Your task to perform on an android device: Clear the shopping cart on newegg. Search for "acer predator" on newegg, select the first entry, and add it to the cart. Image 0: 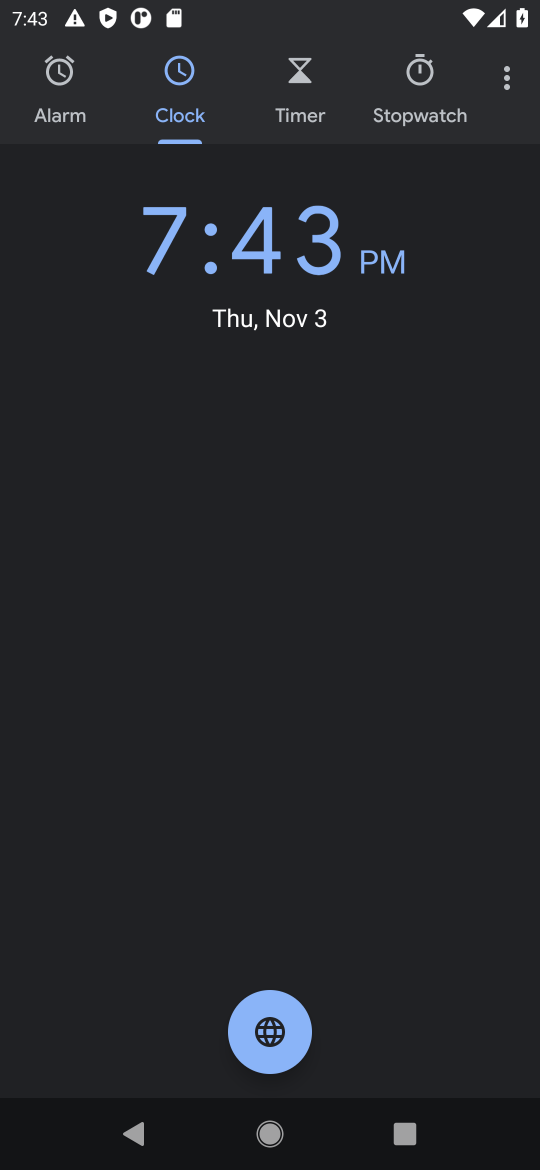
Step 0: press home button
Your task to perform on an android device: Clear the shopping cart on newegg. Search for "acer predator" on newegg, select the first entry, and add it to the cart. Image 1: 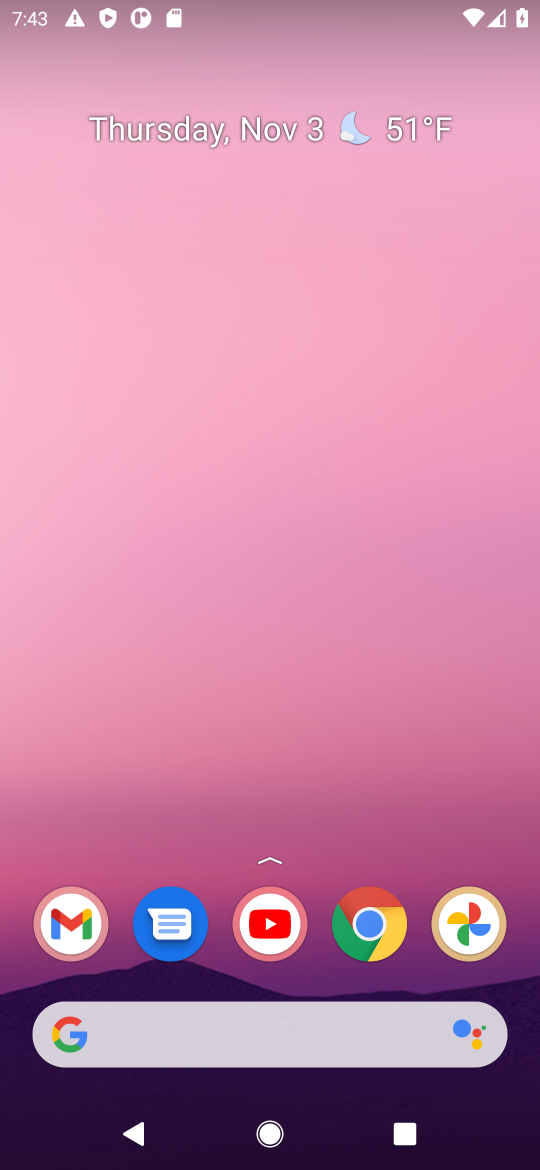
Step 1: drag from (128, 981) to (211, 319)
Your task to perform on an android device: Clear the shopping cart on newegg. Search for "acer predator" on newegg, select the first entry, and add it to the cart. Image 2: 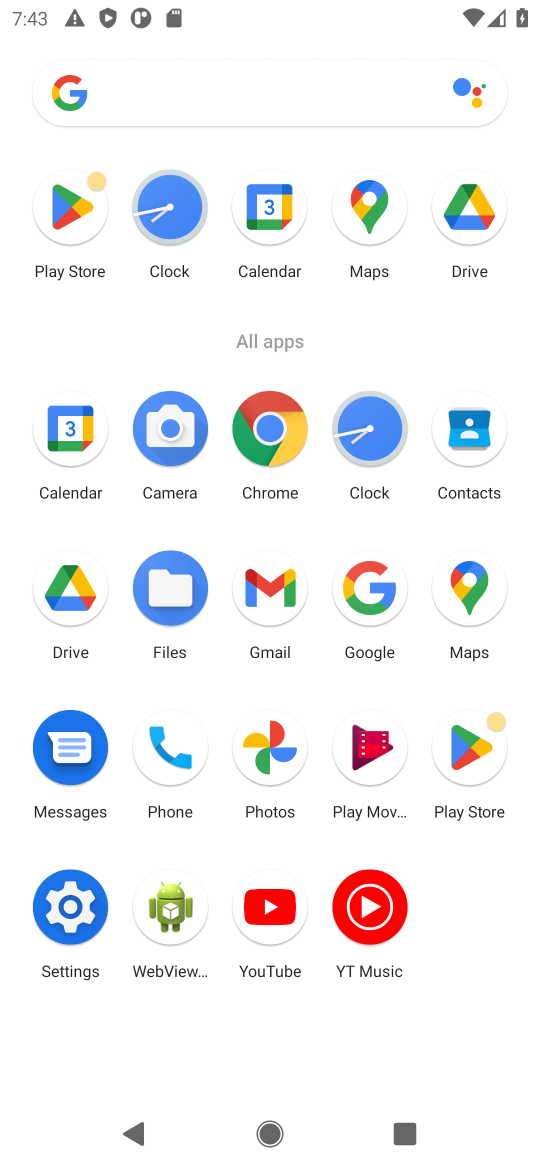
Step 2: click (369, 576)
Your task to perform on an android device: Clear the shopping cart on newegg. Search for "acer predator" on newegg, select the first entry, and add it to the cart. Image 3: 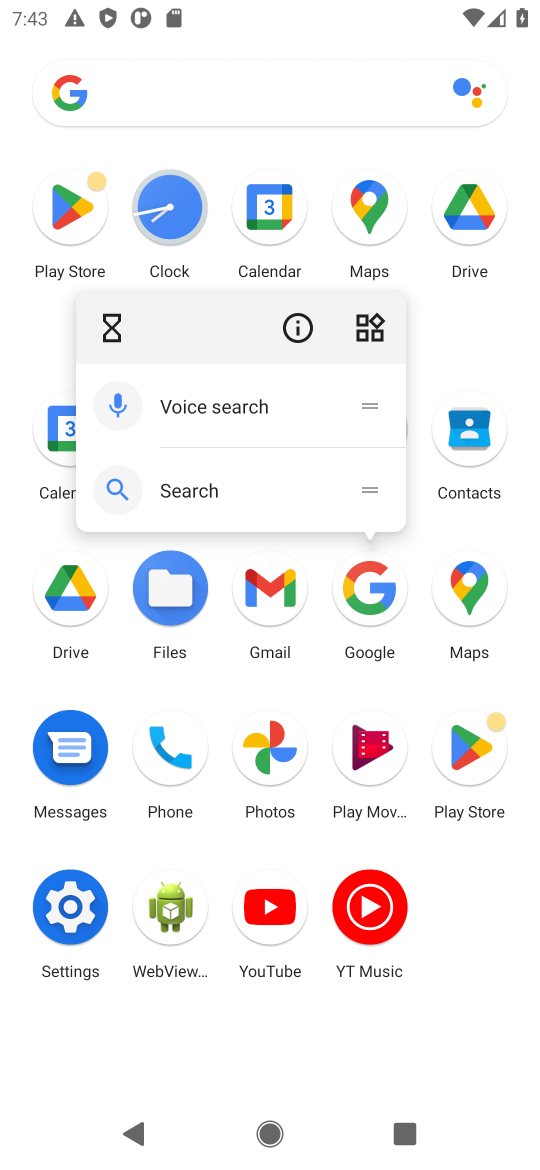
Step 3: click (366, 567)
Your task to perform on an android device: Clear the shopping cart on newegg. Search for "acer predator" on newegg, select the first entry, and add it to the cart. Image 4: 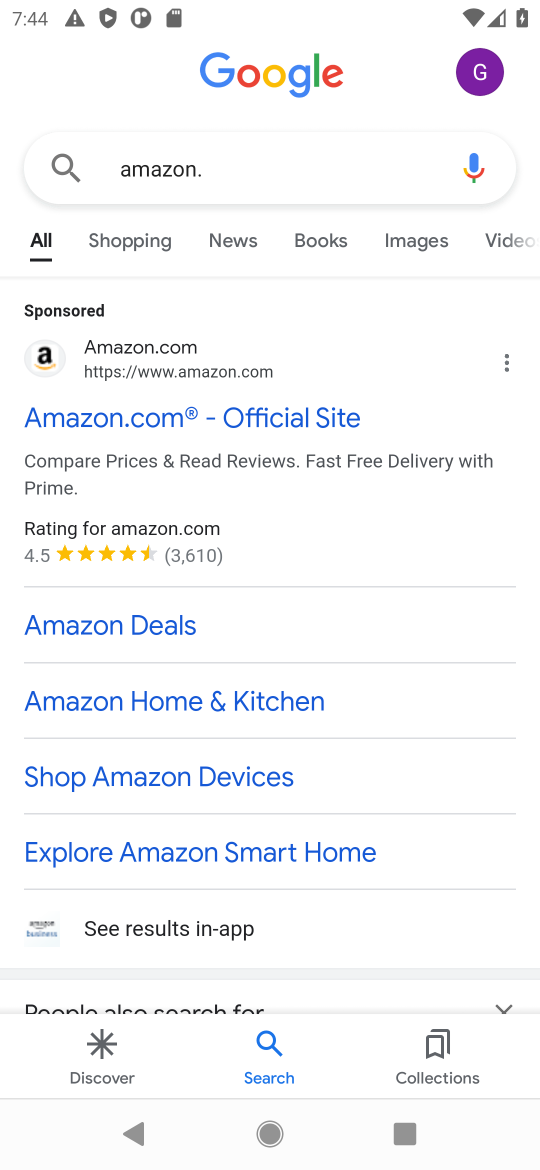
Step 4: click (237, 146)
Your task to perform on an android device: Clear the shopping cart on newegg. Search for "acer predator" on newegg, select the first entry, and add it to the cart. Image 5: 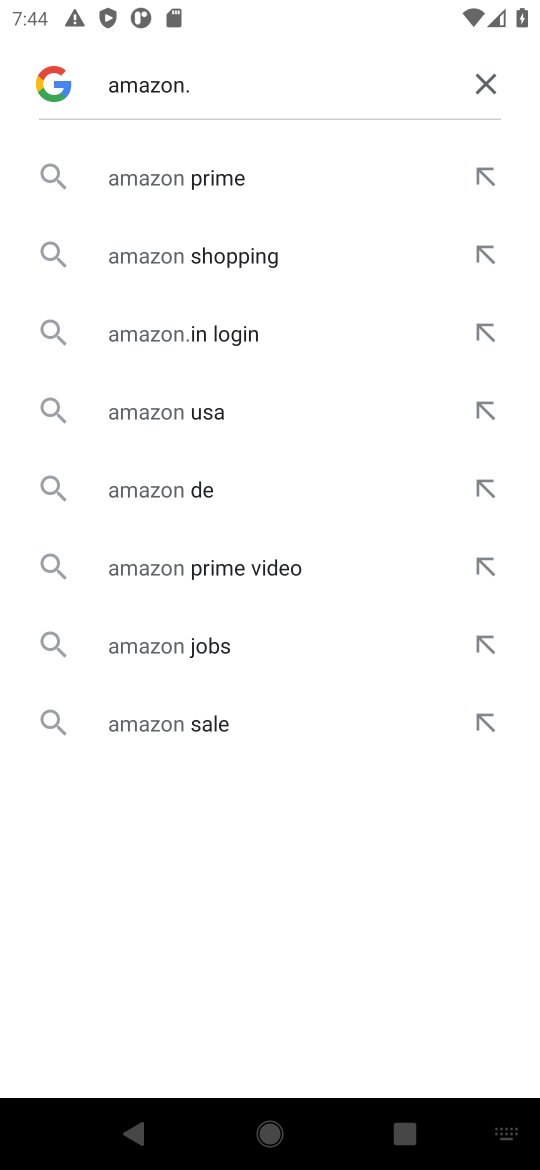
Step 5: click (478, 68)
Your task to perform on an android device: Clear the shopping cart on newegg. Search for "acer predator" on newegg, select the first entry, and add it to the cart. Image 6: 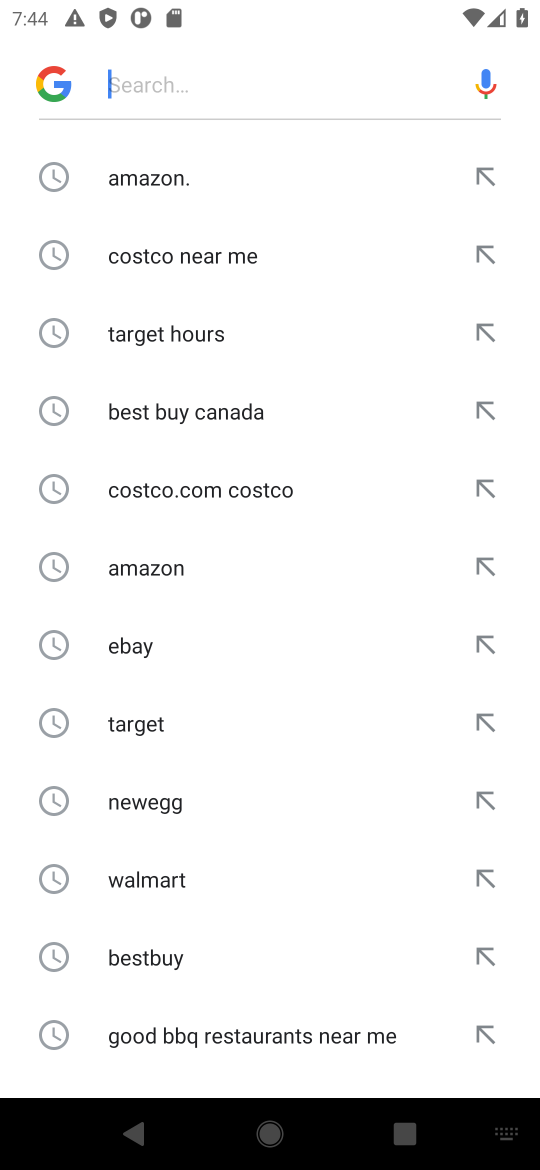
Step 6: click (208, 70)
Your task to perform on an android device: Clear the shopping cart on newegg. Search for "acer predator" on newegg, select the first entry, and add it to the cart. Image 7: 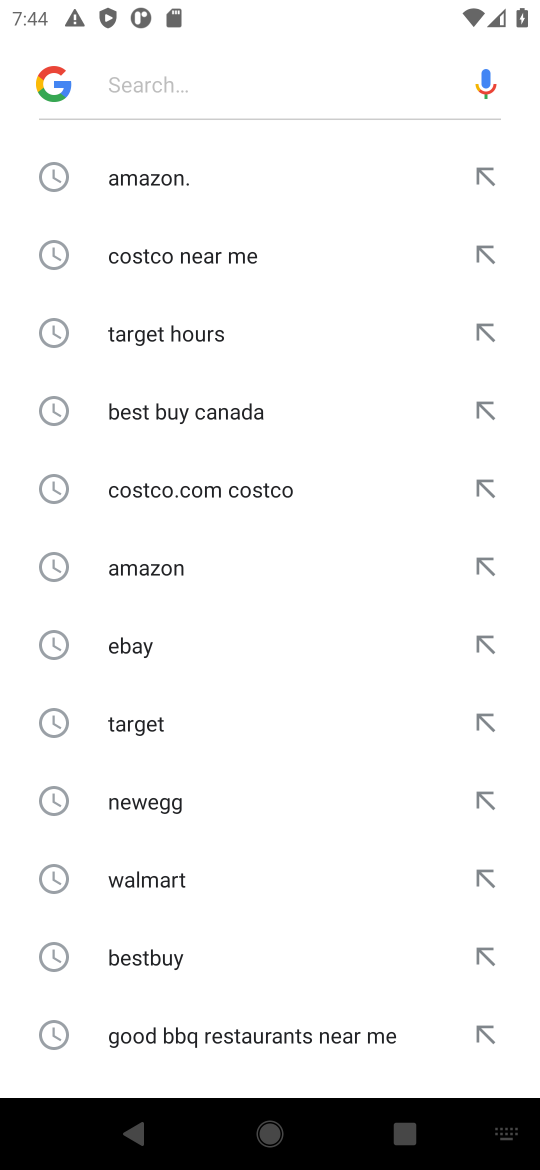
Step 7: type "newegg "
Your task to perform on an android device: Clear the shopping cart on newegg. Search for "acer predator" on newegg, select the first entry, and add it to the cart. Image 8: 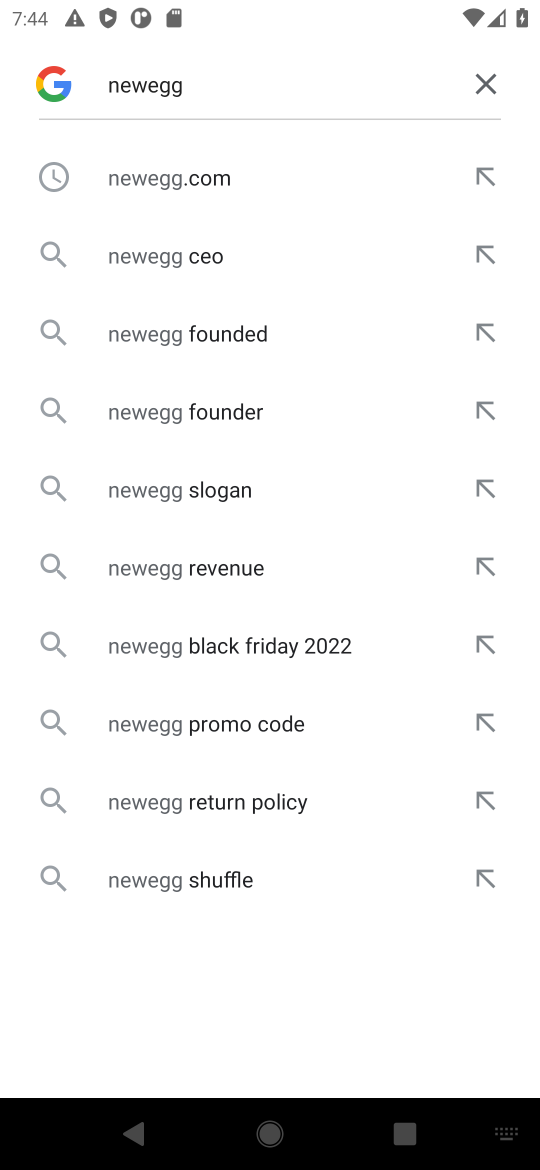
Step 8: click (124, 171)
Your task to perform on an android device: Clear the shopping cart on newegg. Search for "acer predator" on newegg, select the first entry, and add it to the cart. Image 9: 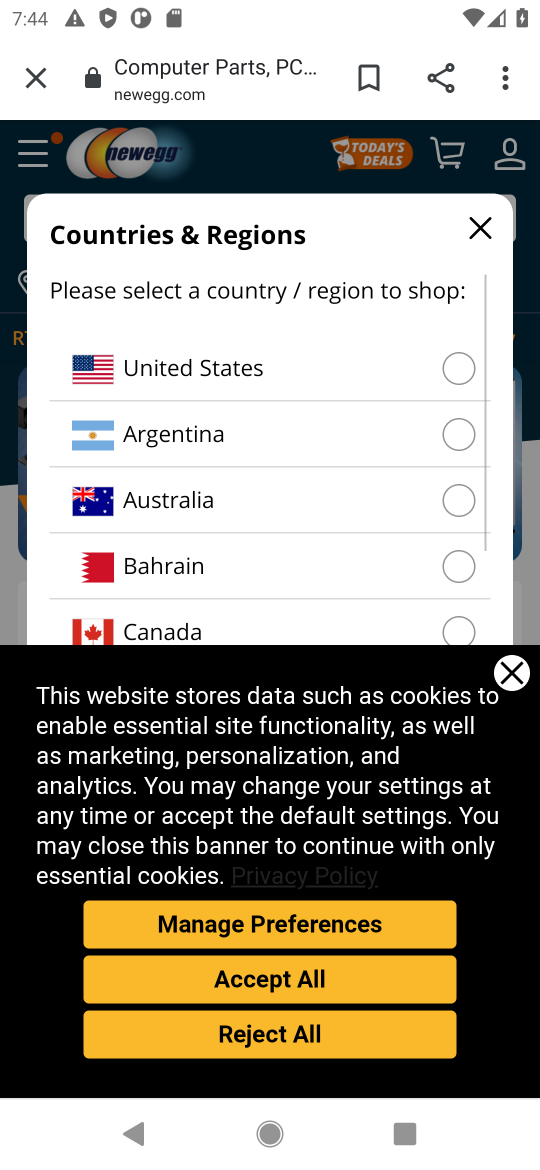
Step 9: click (515, 670)
Your task to perform on an android device: Clear the shopping cart on newegg. Search for "acer predator" on newegg, select the first entry, and add it to the cart. Image 10: 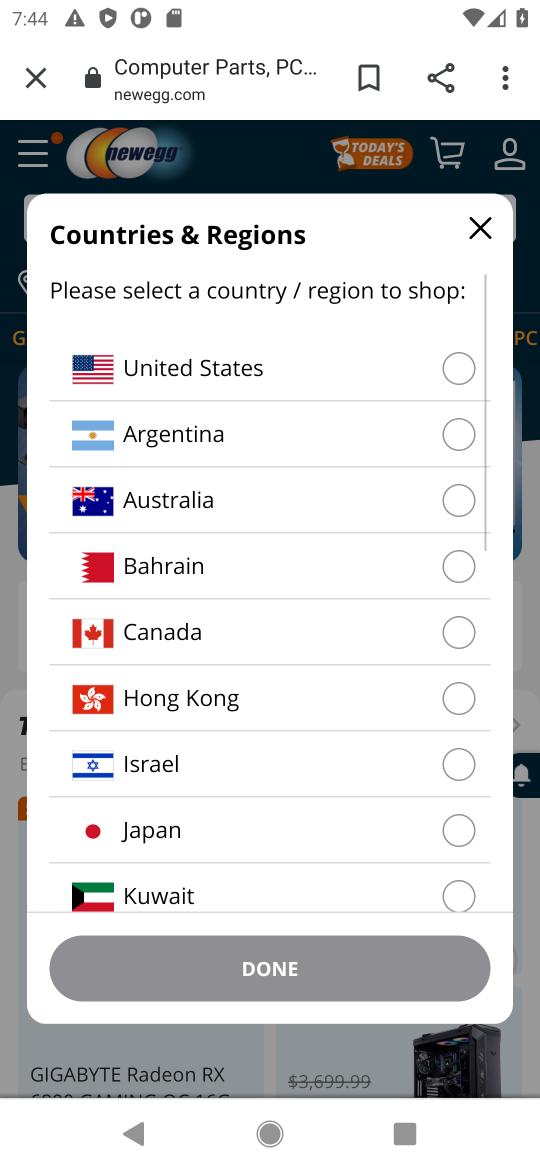
Step 10: click (480, 233)
Your task to perform on an android device: Clear the shopping cart on newegg. Search for "acer predator" on newegg, select the first entry, and add it to the cart. Image 11: 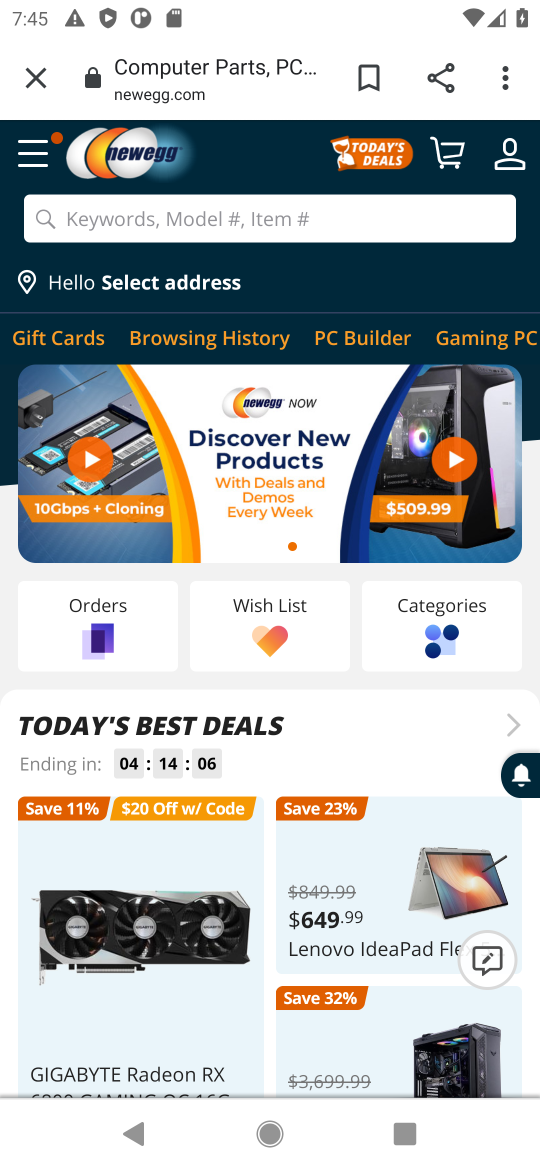
Step 11: click (221, 202)
Your task to perform on an android device: Clear the shopping cart on newegg. Search for "acer predator" on newegg, select the first entry, and add it to the cart. Image 12: 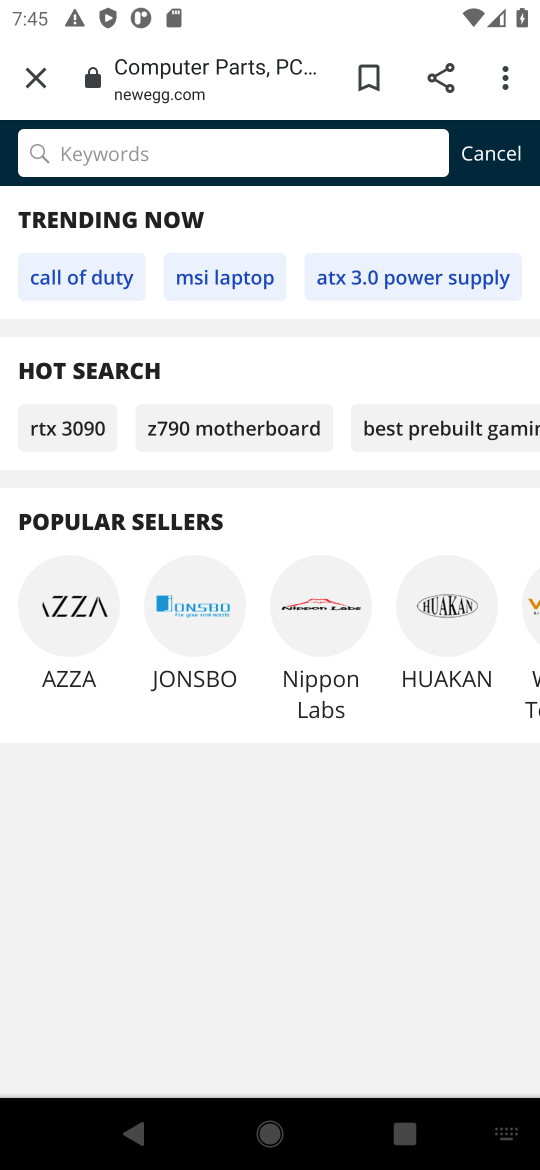
Step 12: type "acer predator "
Your task to perform on an android device: Clear the shopping cart on newegg. Search for "acer predator" on newegg, select the first entry, and add it to the cart. Image 13: 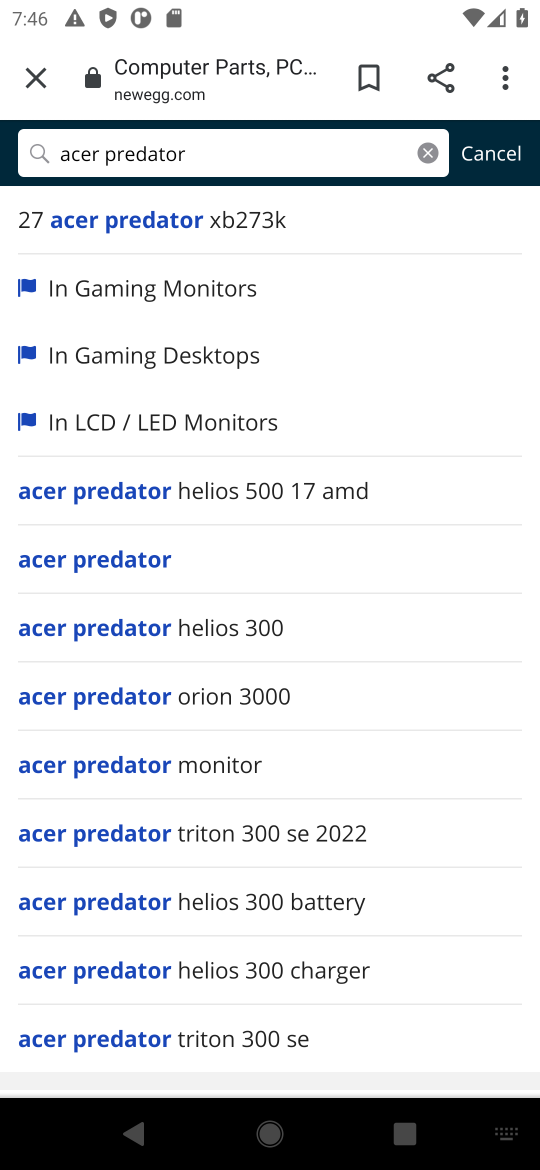
Step 13: click (170, 215)
Your task to perform on an android device: Clear the shopping cart on newegg. Search for "acer predator" on newegg, select the first entry, and add it to the cart. Image 14: 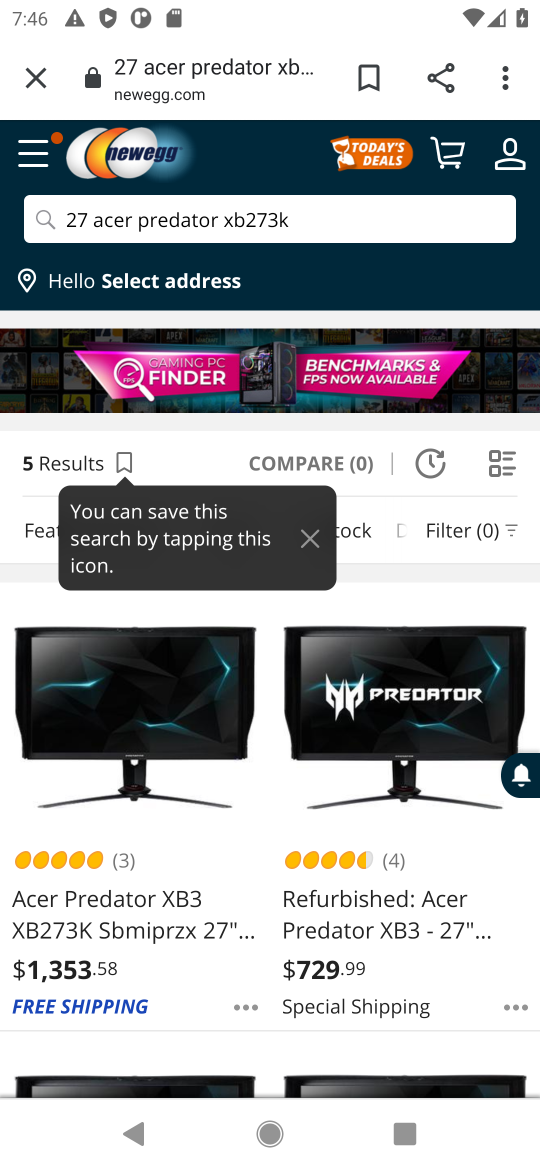
Step 14: click (161, 899)
Your task to perform on an android device: Clear the shopping cart on newegg. Search for "acer predator" on newegg, select the first entry, and add it to the cart. Image 15: 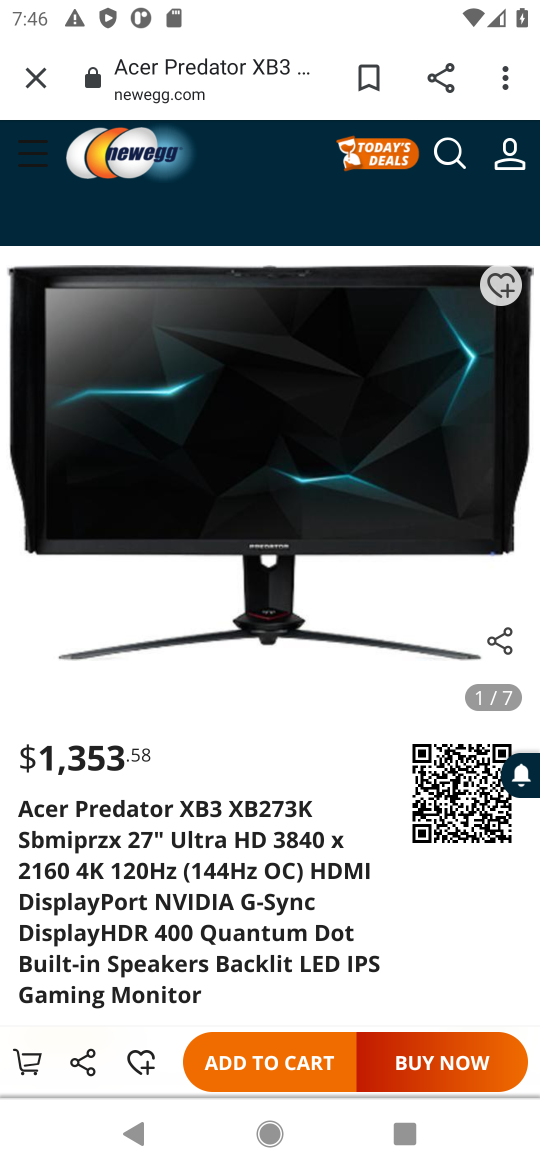
Step 15: click (232, 1054)
Your task to perform on an android device: Clear the shopping cart on newegg. Search for "acer predator" on newegg, select the first entry, and add it to the cart. Image 16: 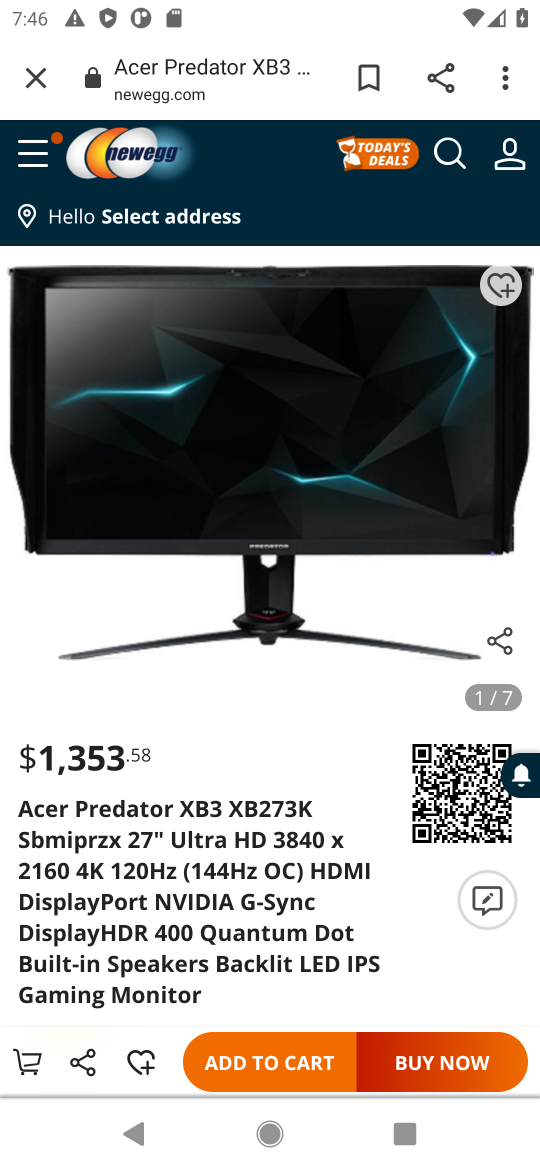
Step 16: click (232, 1054)
Your task to perform on an android device: Clear the shopping cart on newegg. Search for "acer predator" on newegg, select the first entry, and add it to the cart. Image 17: 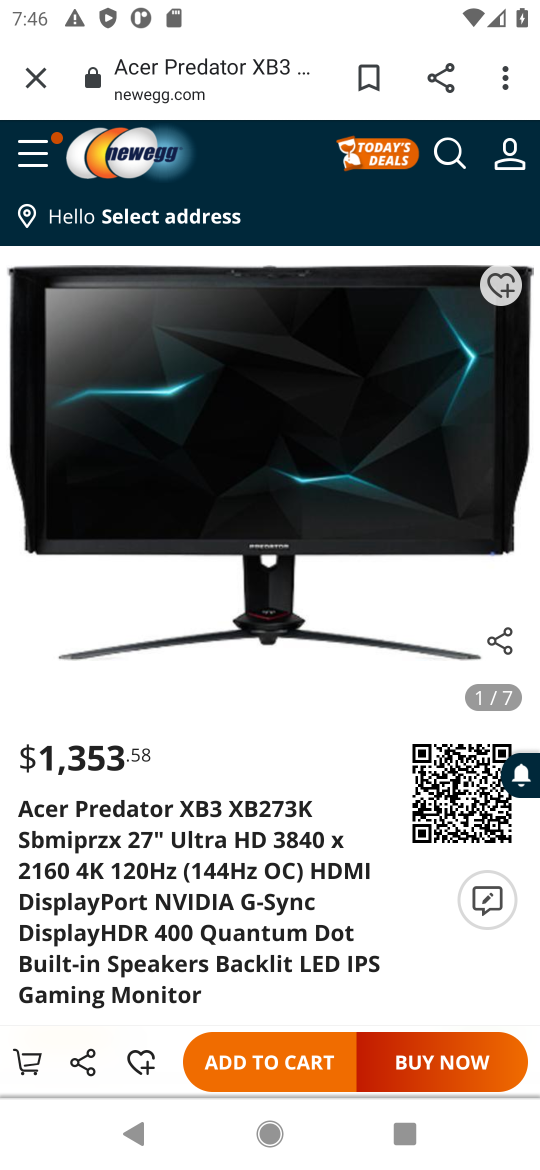
Step 17: click (282, 1051)
Your task to perform on an android device: Clear the shopping cart on newegg. Search for "acer predator" on newegg, select the first entry, and add it to the cart. Image 18: 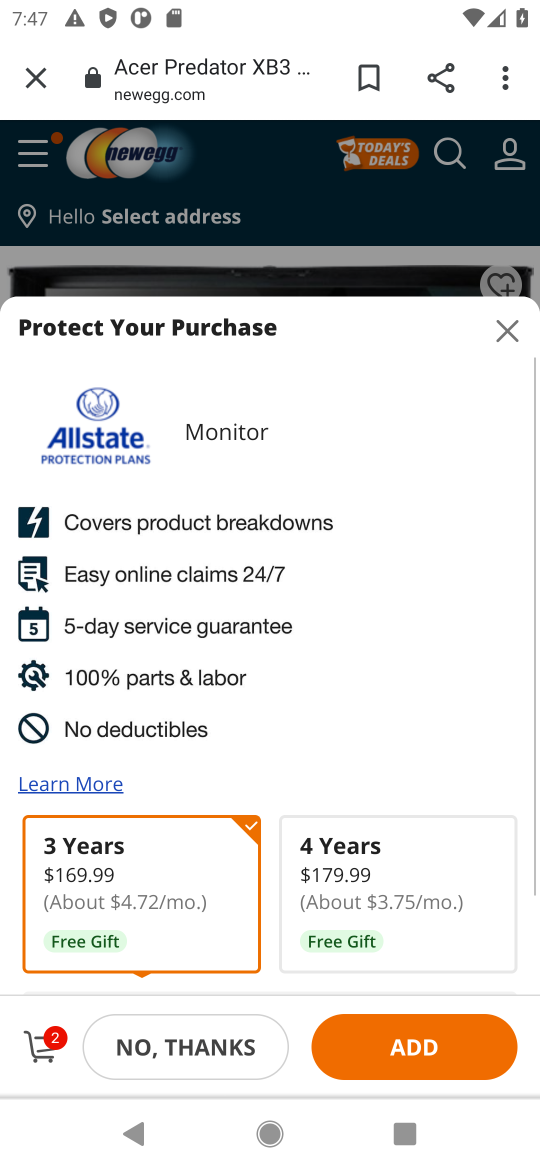
Step 18: task complete